Your task to perform on an android device: remove spam from my inbox in the gmail app Image 0: 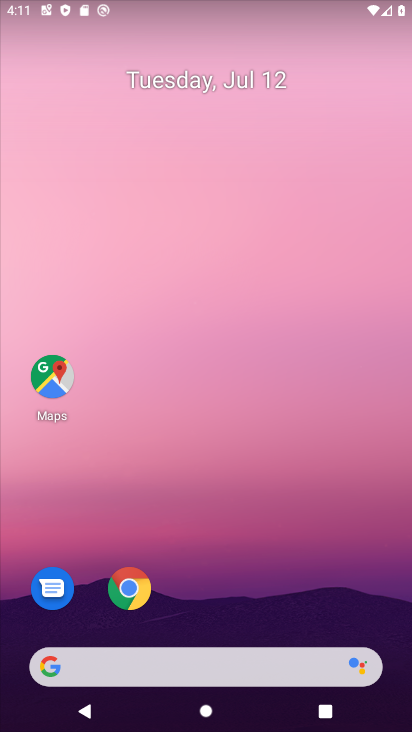
Step 0: drag from (226, 624) to (226, 166)
Your task to perform on an android device: remove spam from my inbox in the gmail app Image 1: 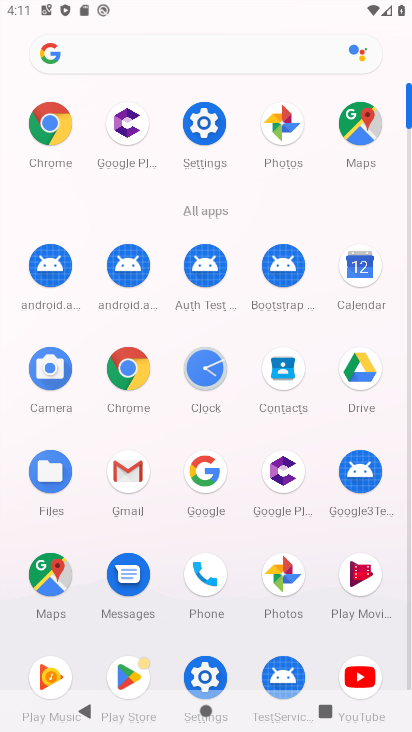
Step 1: click (138, 469)
Your task to perform on an android device: remove spam from my inbox in the gmail app Image 2: 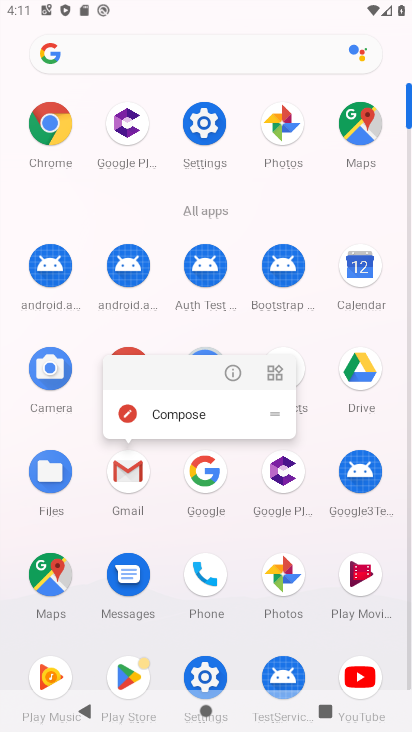
Step 2: click (138, 469)
Your task to perform on an android device: remove spam from my inbox in the gmail app Image 3: 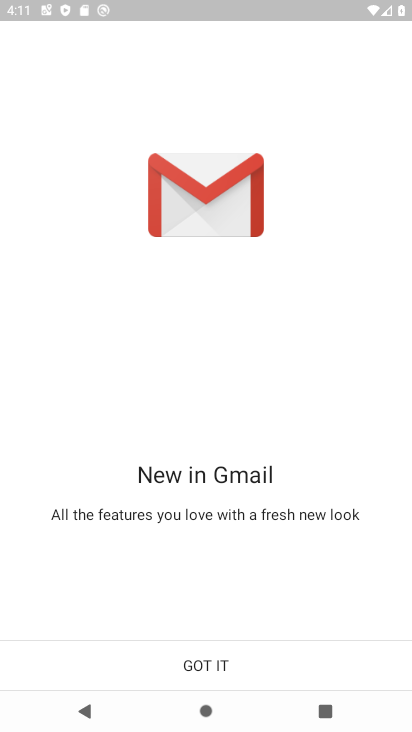
Step 3: click (235, 661)
Your task to perform on an android device: remove spam from my inbox in the gmail app Image 4: 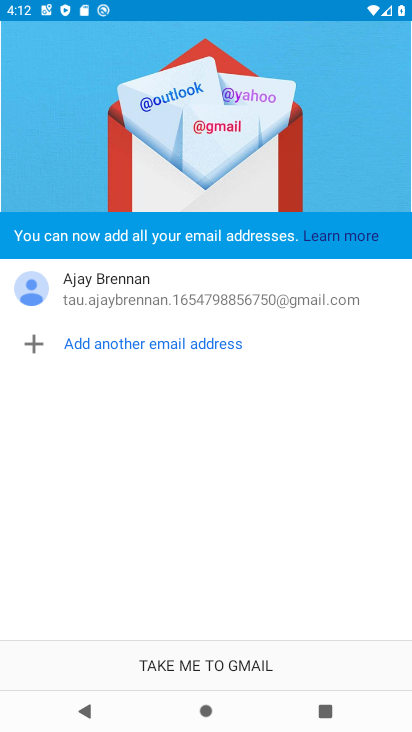
Step 4: click (147, 675)
Your task to perform on an android device: remove spam from my inbox in the gmail app Image 5: 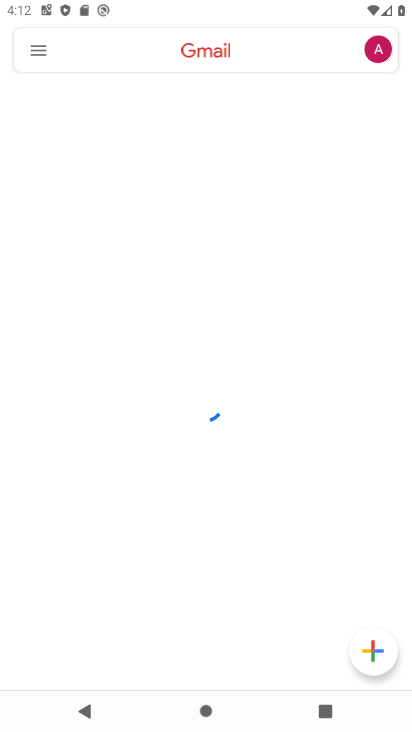
Step 5: click (30, 55)
Your task to perform on an android device: remove spam from my inbox in the gmail app Image 6: 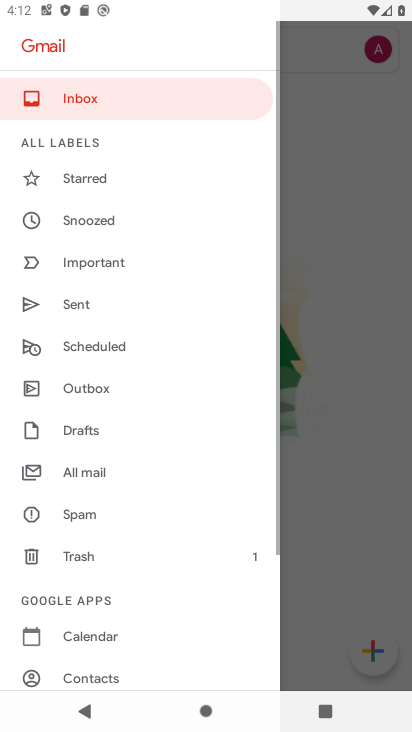
Step 6: click (316, 221)
Your task to perform on an android device: remove spam from my inbox in the gmail app Image 7: 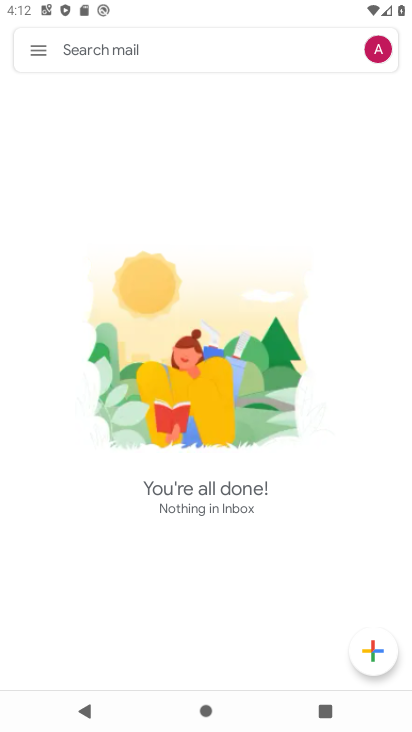
Step 7: click (29, 54)
Your task to perform on an android device: remove spam from my inbox in the gmail app Image 8: 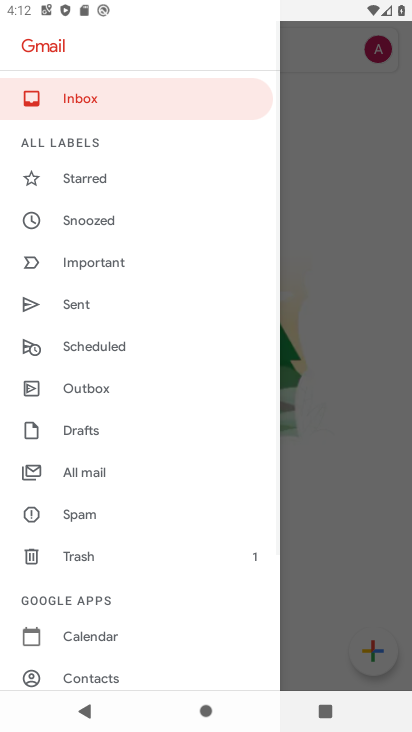
Step 8: click (115, 516)
Your task to perform on an android device: remove spam from my inbox in the gmail app Image 9: 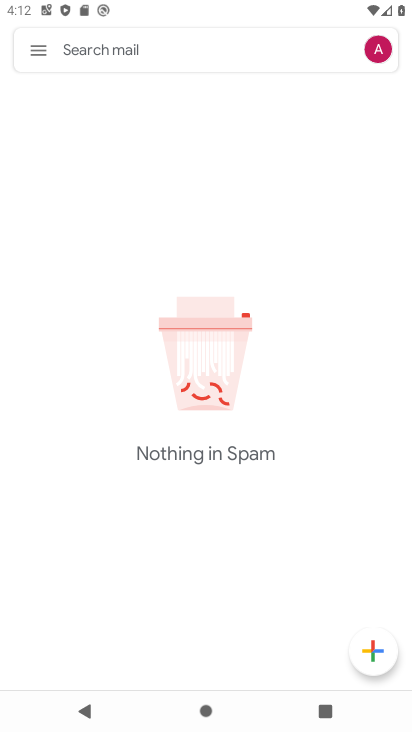
Step 9: task complete